Your task to perform on an android device: Open Google Chrome and click the shortcut for Amazon.com Image 0: 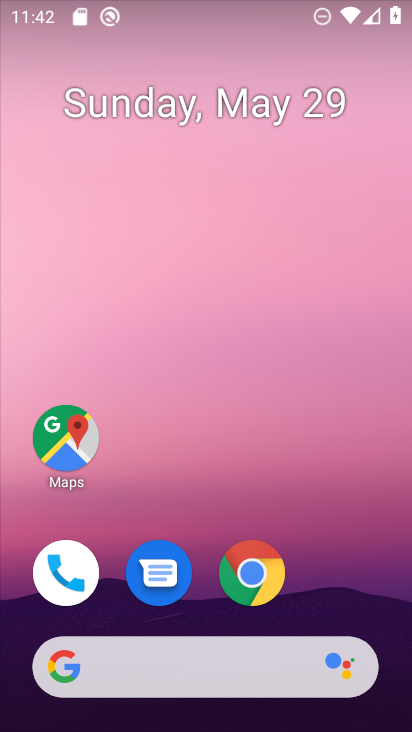
Step 0: drag from (363, 595) to (334, 209)
Your task to perform on an android device: Open Google Chrome and click the shortcut for Amazon.com Image 1: 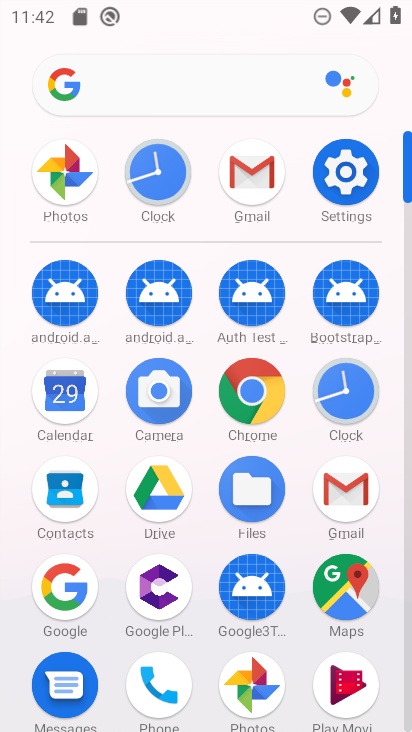
Step 1: click (256, 391)
Your task to perform on an android device: Open Google Chrome and click the shortcut for Amazon.com Image 2: 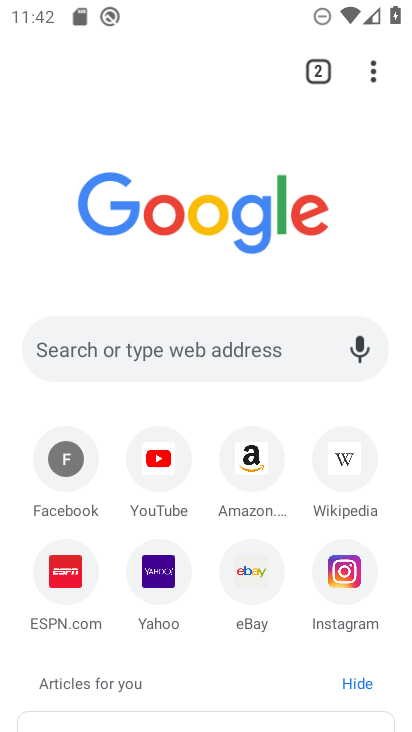
Step 2: click (260, 444)
Your task to perform on an android device: Open Google Chrome and click the shortcut for Amazon.com Image 3: 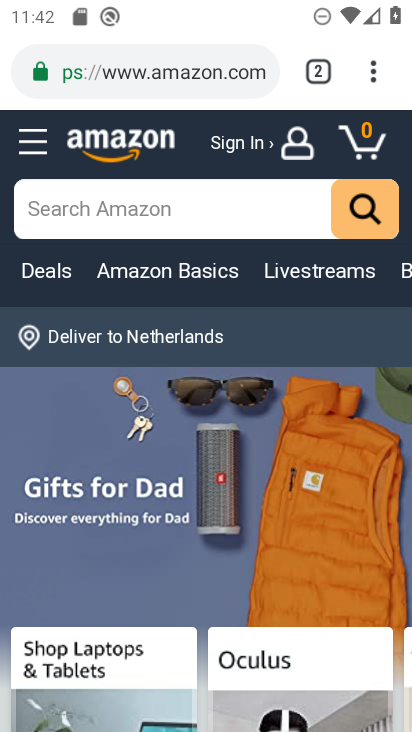
Step 3: task complete